Your task to perform on an android device: Add beats solo 3 to the cart on target Image 0: 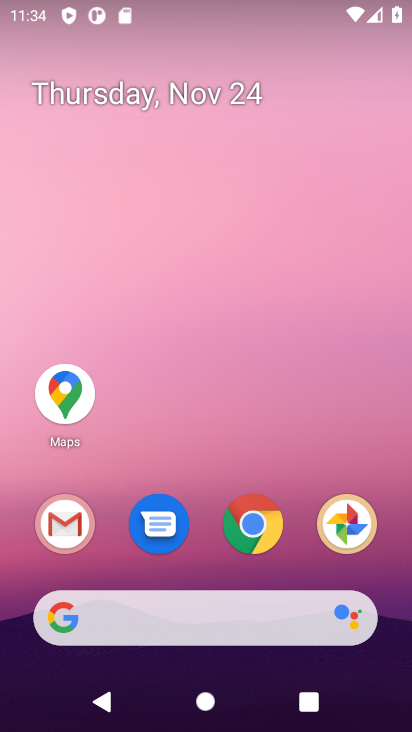
Step 0: click (253, 529)
Your task to perform on an android device: Add beats solo 3 to the cart on target Image 1: 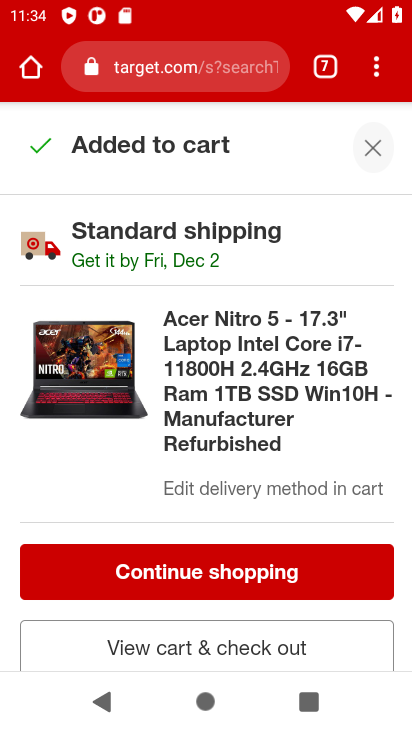
Step 1: click (372, 153)
Your task to perform on an android device: Add beats solo 3 to the cart on target Image 2: 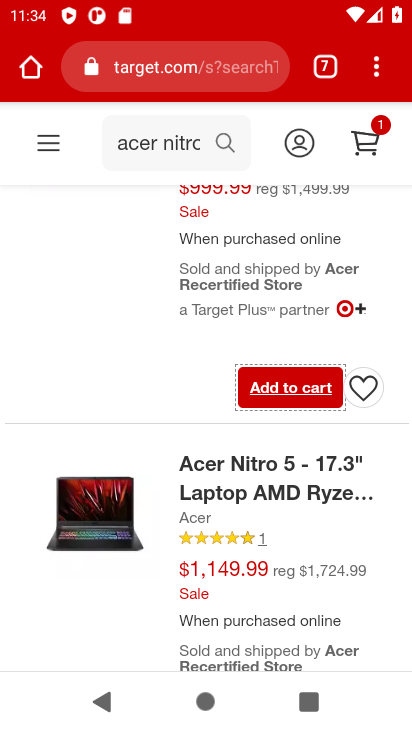
Step 2: click (226, 139)
Your task to perform on an android device: Add beats solo 3 to the cart on target Image 3: 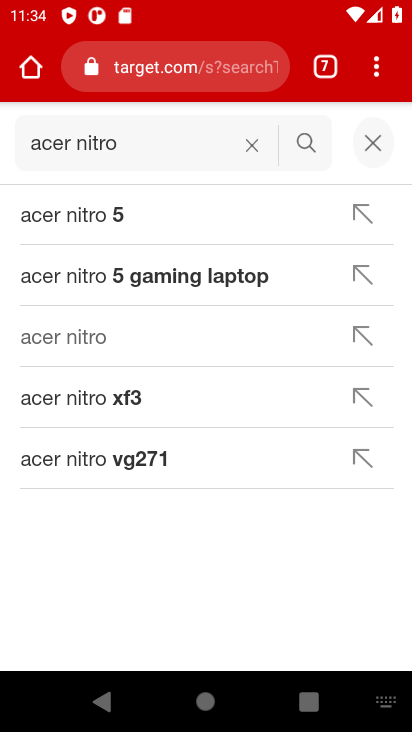
Step 3: click (253, 145)
Your task to perform on an android device: Add beats solo 3 to the cart on target Image 4: 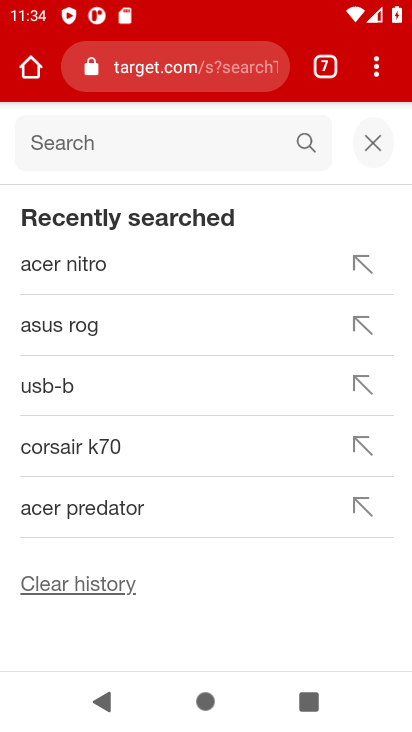
Step 4: type "beats solo 3"
Your task to perform on an android device: Add beats solo 3 to the cart on target Image 5: 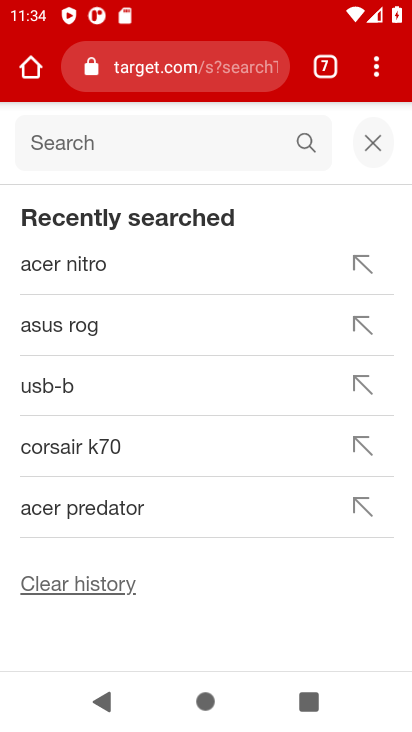
Step 5: click (46, 143)
Your task to perform on an android device: Add beats solo 3 to the cart on target Image 6: 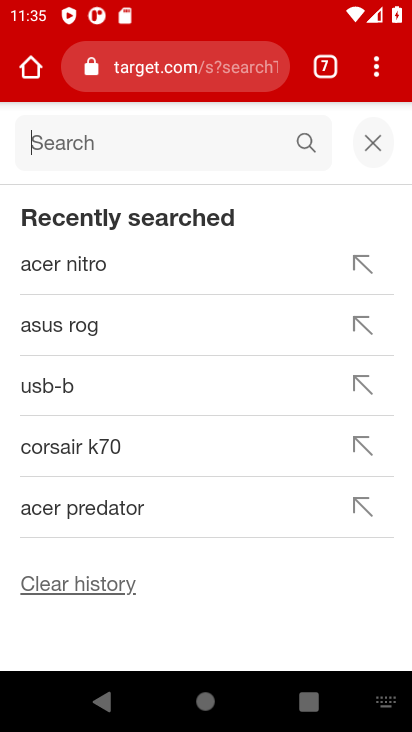
Step 6: type "beats solo 3"
Your task to perform on an android device: Add beats solo 3 to the cart on target Image 7: 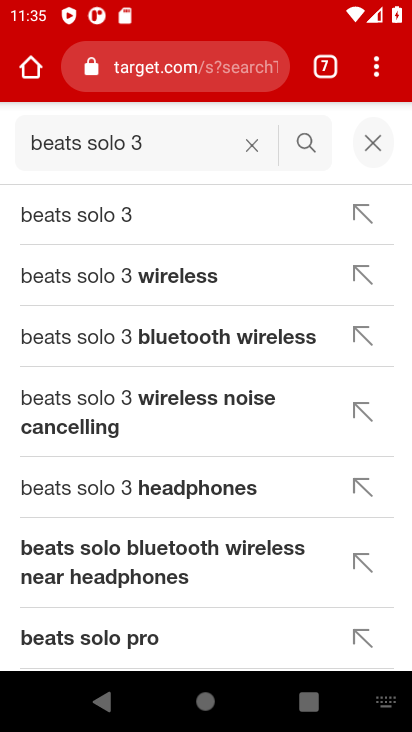
Step 7: click (71, 223)
Your task to perform on an android device: Add beats solo 3 to the cart on target Image 8: 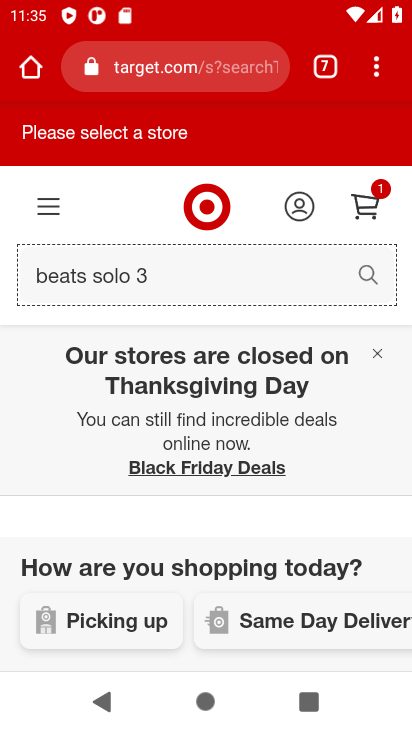
Step 8: drag from (173, 446) to (183, 257)
Your task to perform on an android device: Add beats solo 3 to the cart on target Image 9: 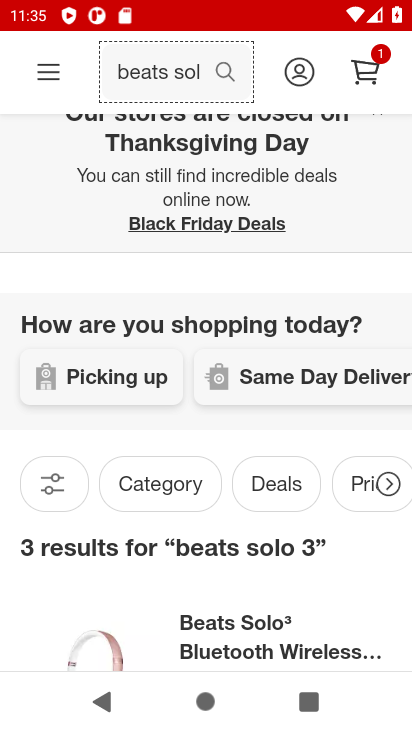
Step 9: drag from (166, 505) to (163, 229)
Your task to perform on an android device: Add beats solo 3 to the cart on target Image 10: 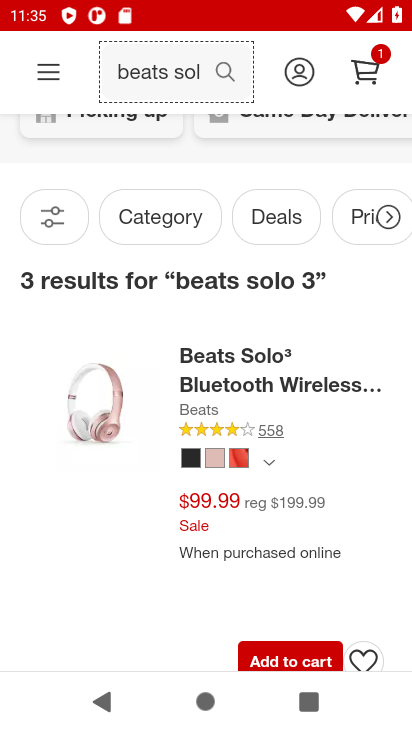
Step 10: drag from (179, 537) to (192, 352)
Your task to perform on an android device: Add beats solo 3 to the cart on target Image 11: 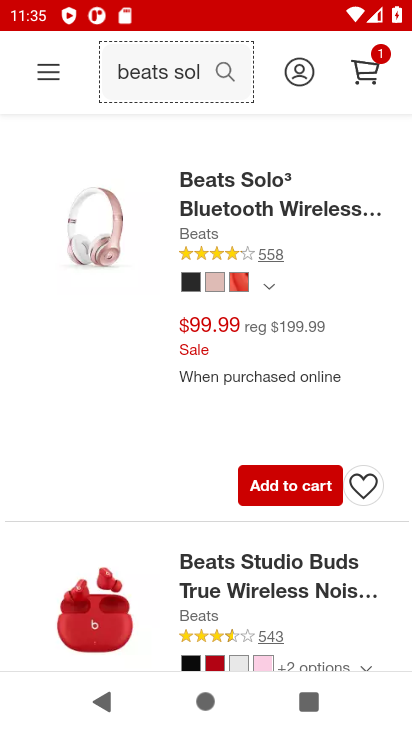
Step 11: click (274, 489)
Your task to perform on an android device: Add beats solo 3 to the cart on target Image 12: 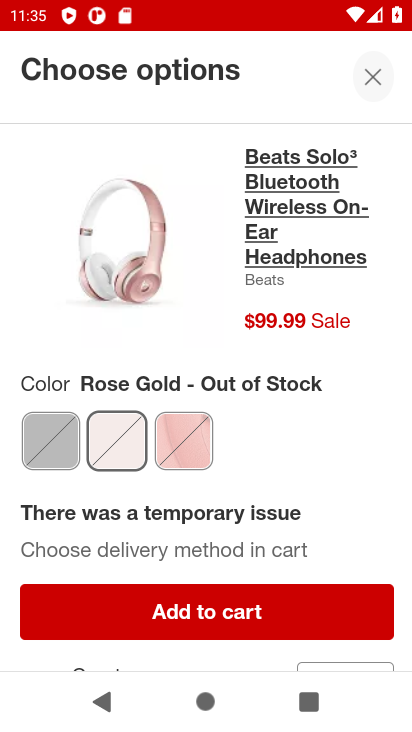
Step 12: drag from (225, 565) to (225, 335)
Your task to perform on an android device: Add beats solo 3 to the cart on target Image 13: 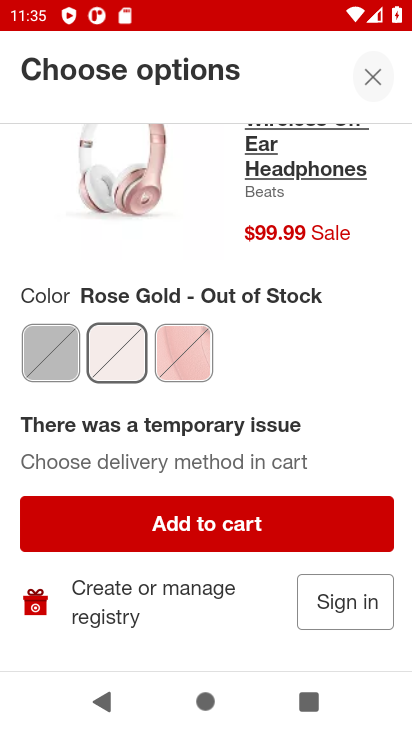
Step 13: click (189, 518)
Your task to perform on an android device: Add beats solo 3 to the cart on target Image 14: 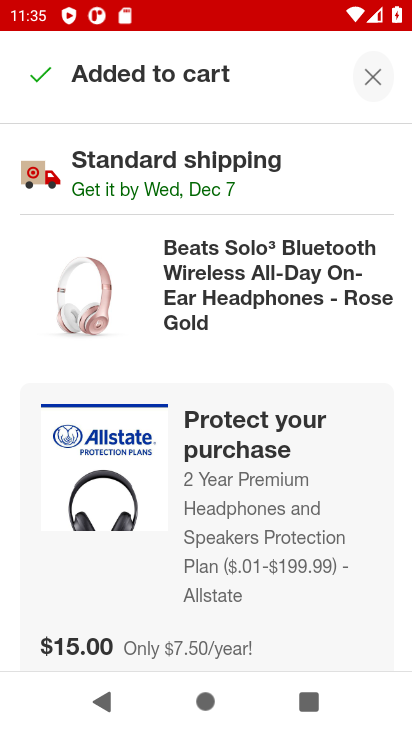
Step 14: task complete